Your task to perform on an android device: create a new album in the google photos Image 0: 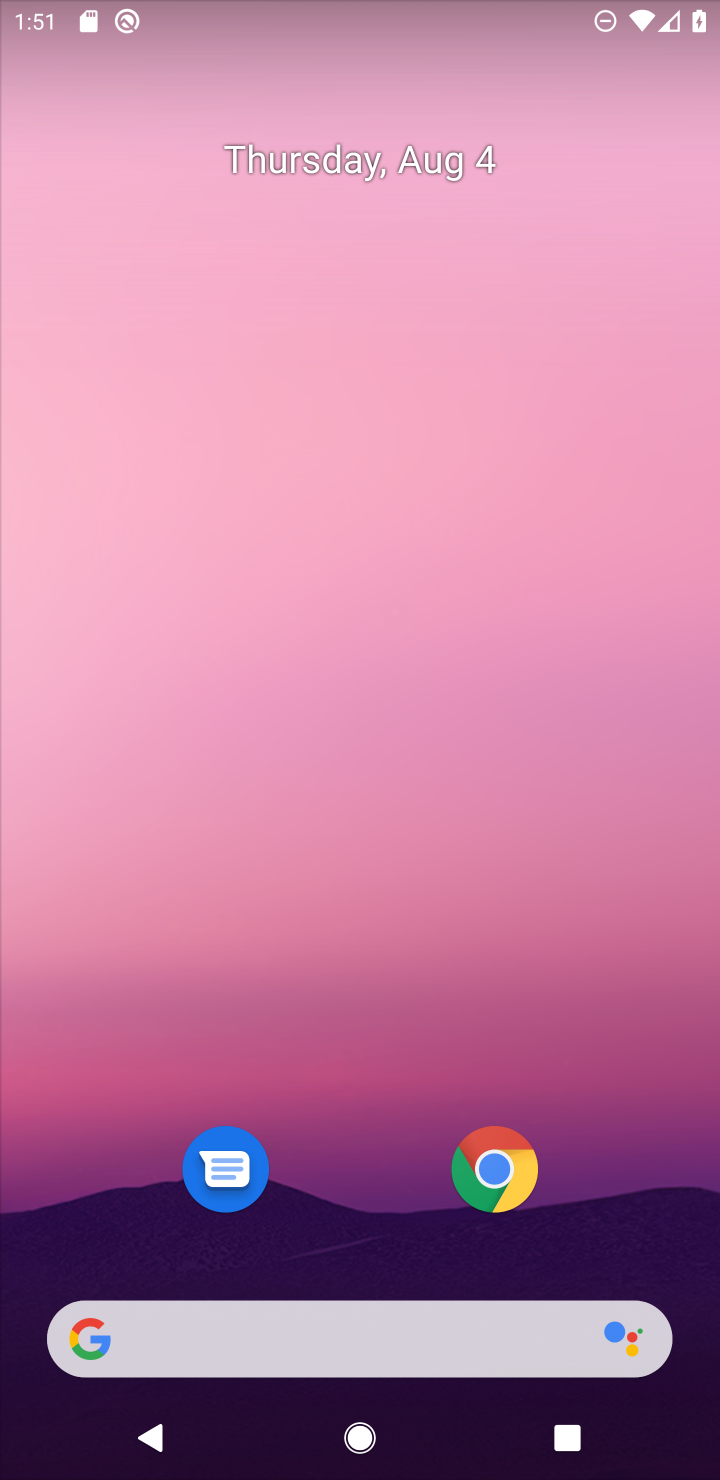
Step 0: drag from (442, 935) to (474, 19)
Your task to perform on an android device: create a new album in the google photos Image 1: 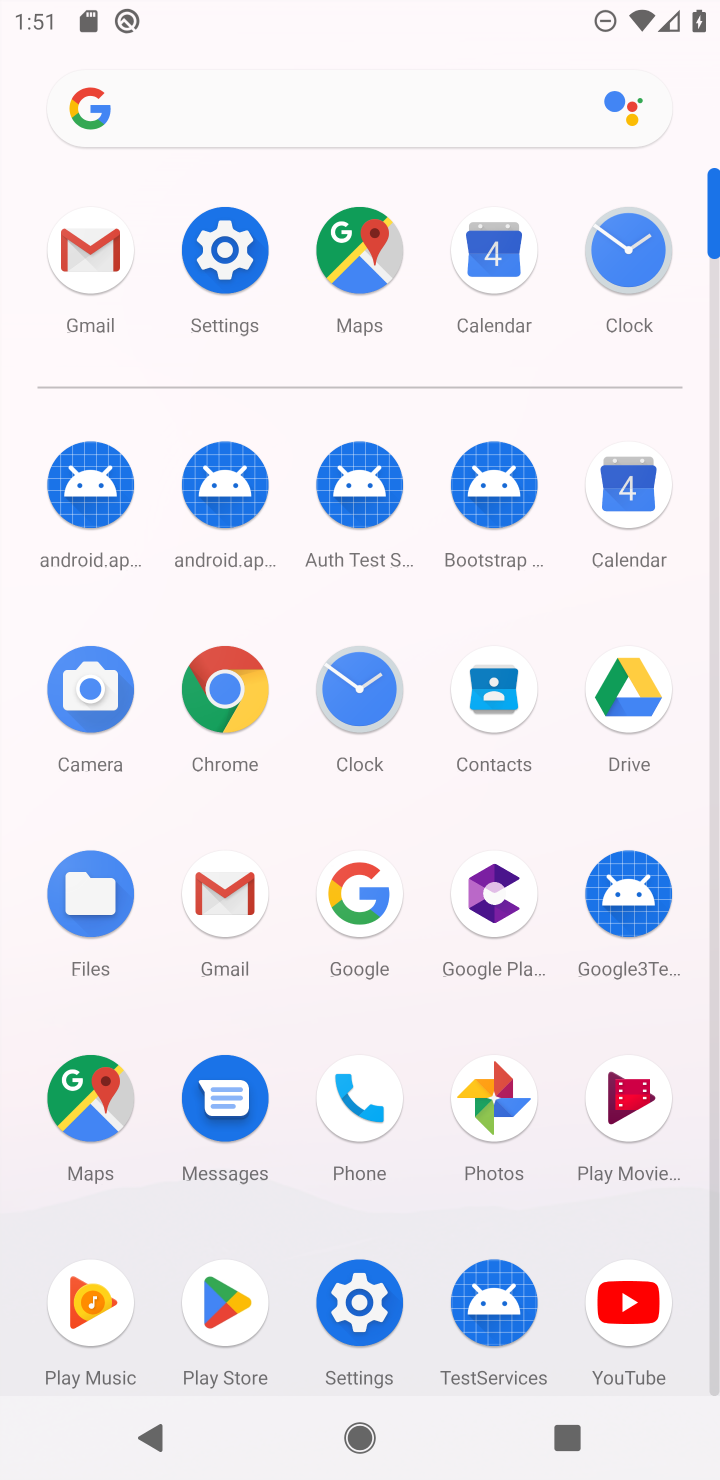
Step 1: click (497, 1108)
Your task to perform on an android device: create a new album in the google photos Image 2: 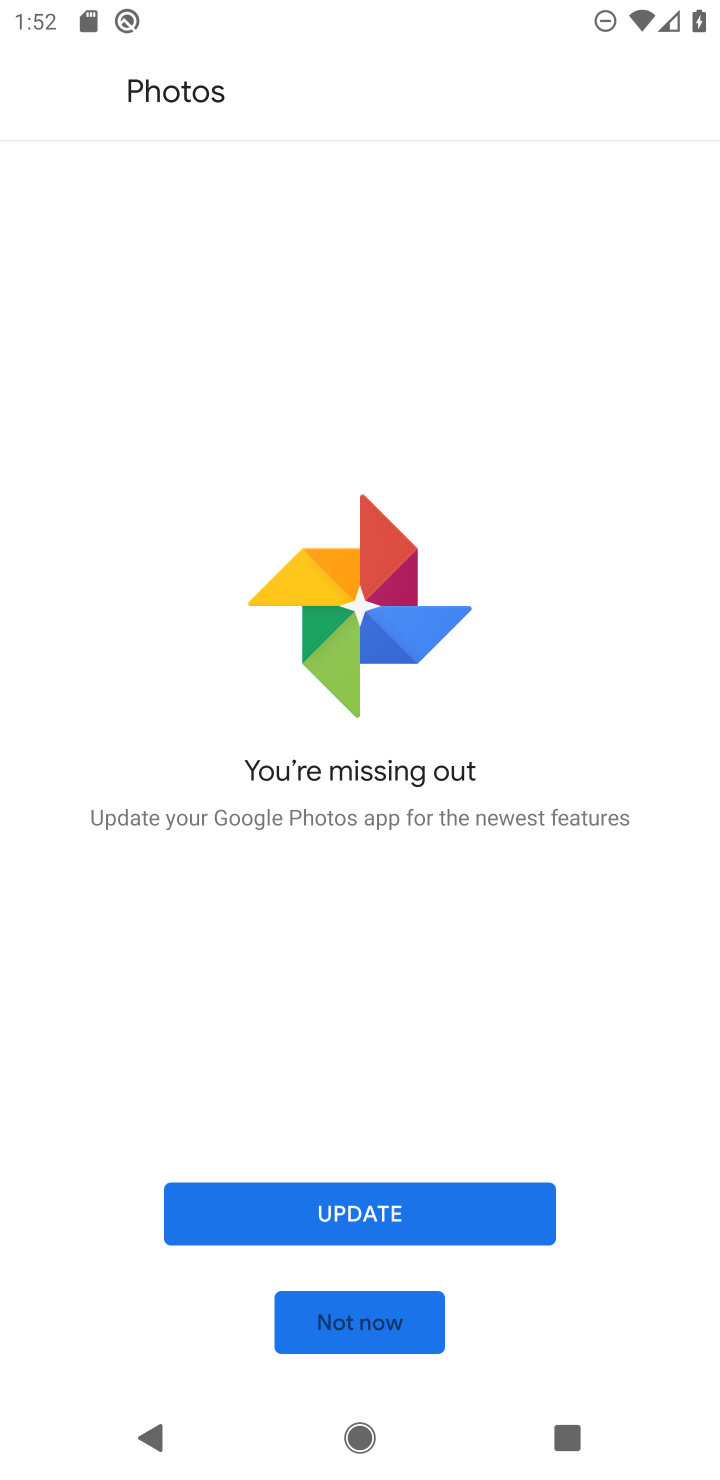
Step 2: click (370, 1321)
Your task to perform on an android device: create a new album in the google photos Image 3: 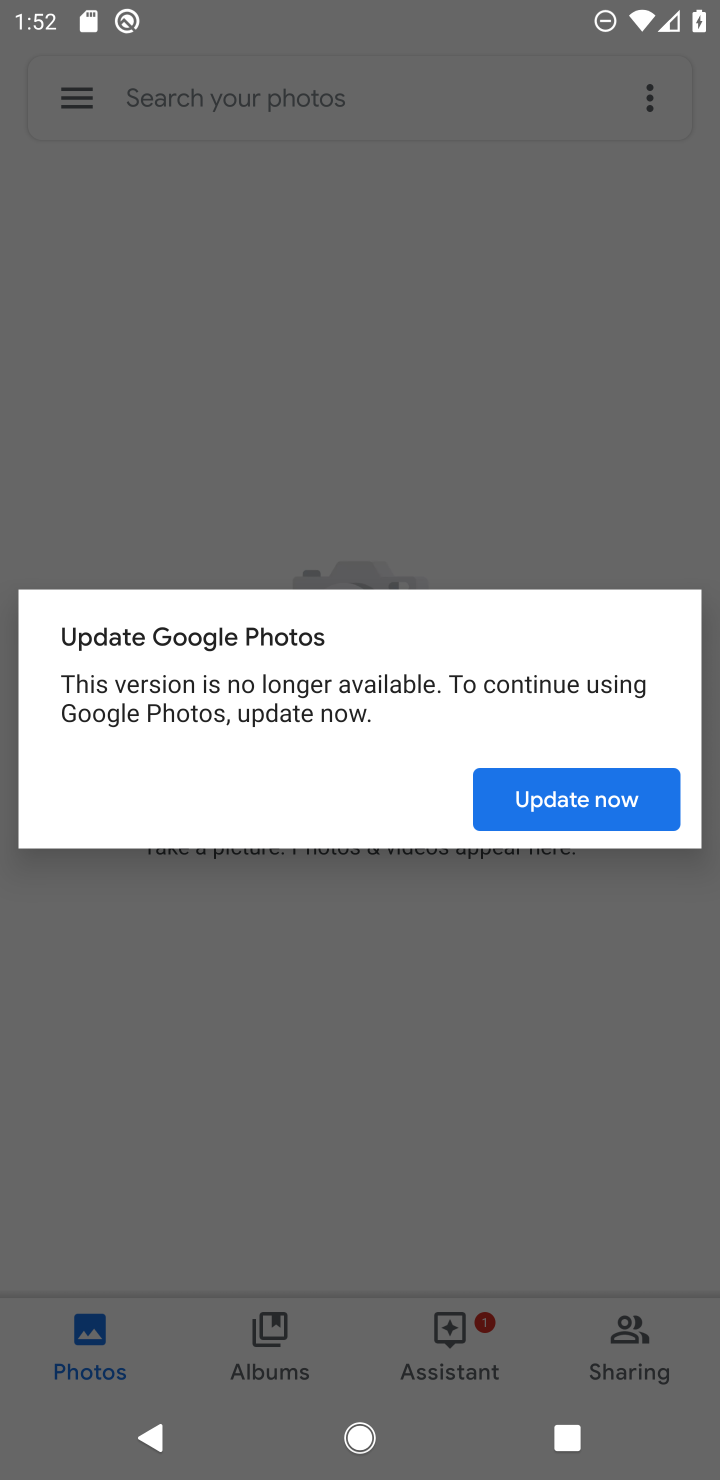
Step 3: click (548, 780)
Your task to perform on an android device: create a new album in the google photos Image 4: 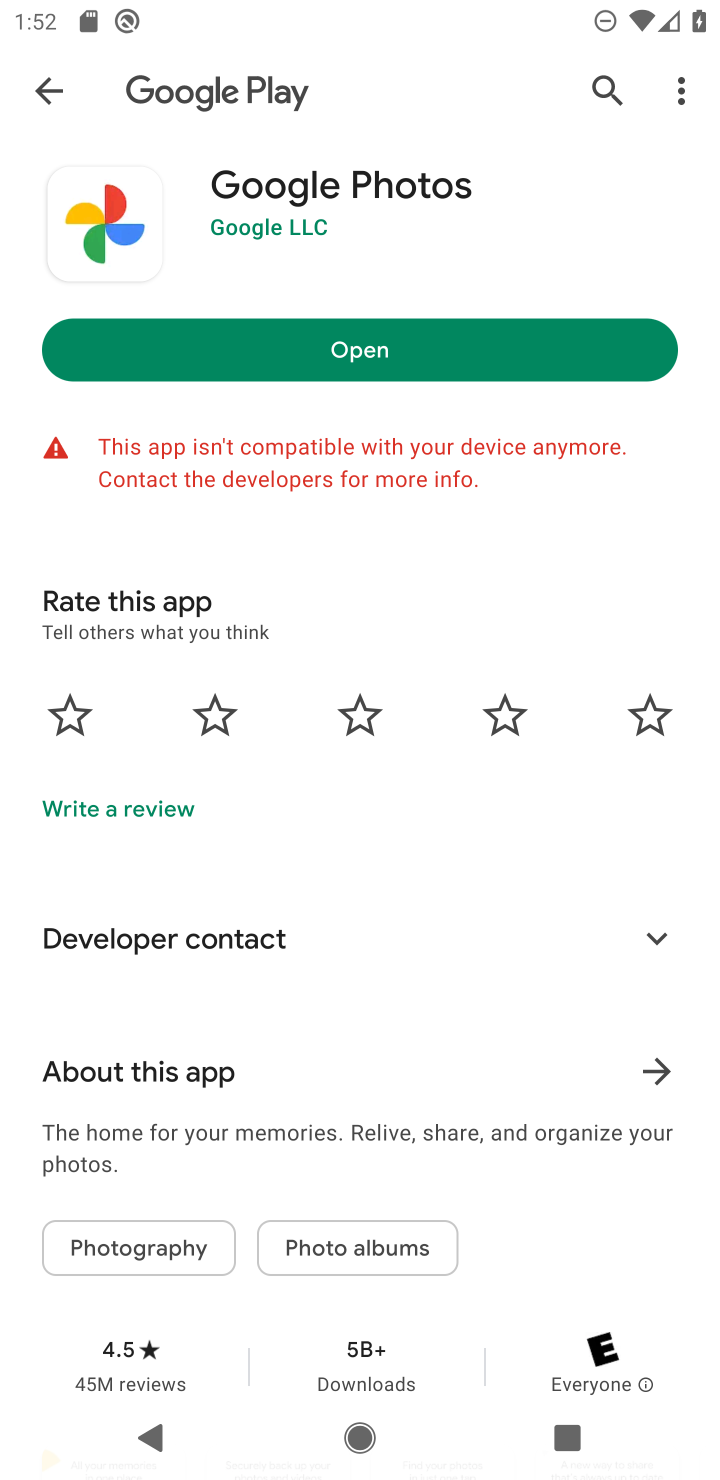
Step 4: click (269, 331)
Your task to perform on an android device: create a new album in the google photos Image 5: 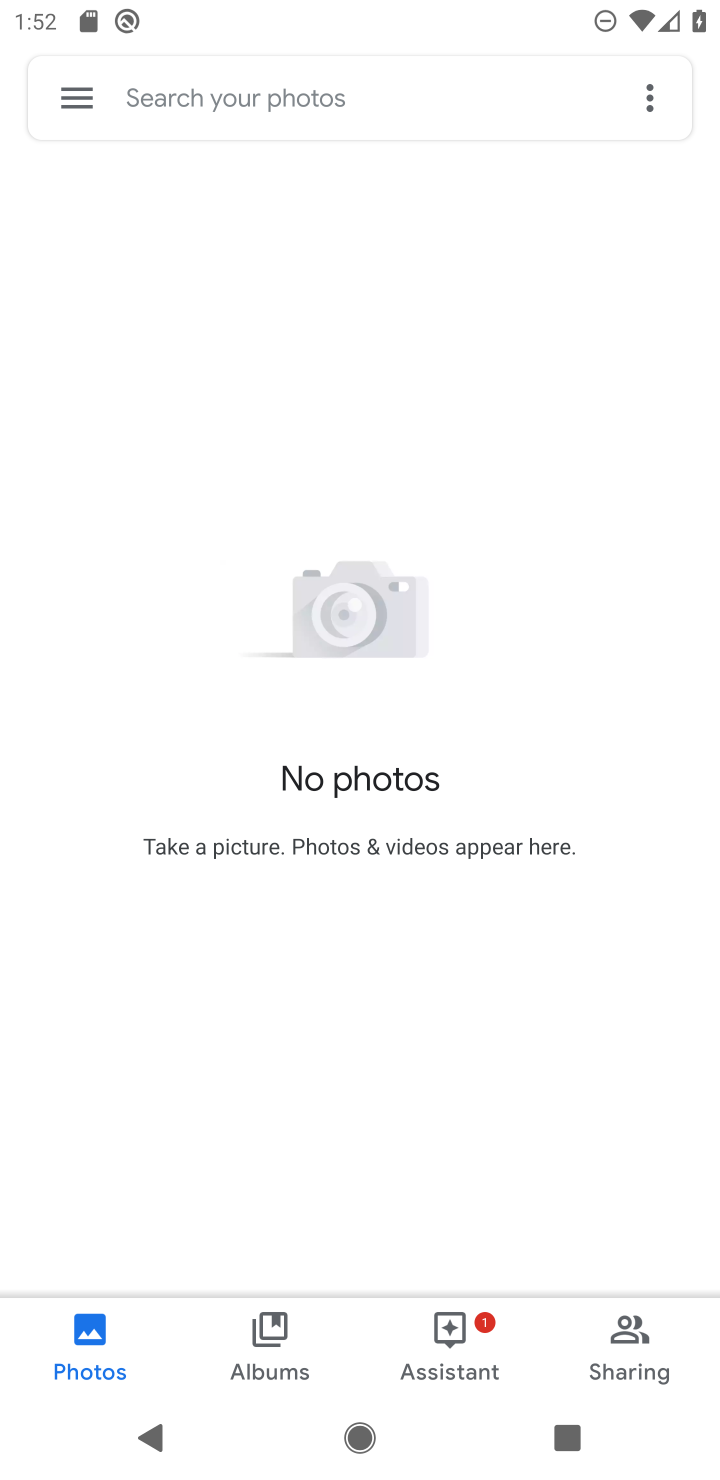
Step 5: task complete